Your task to perform on an android device: toggle airplane mode Image 0: 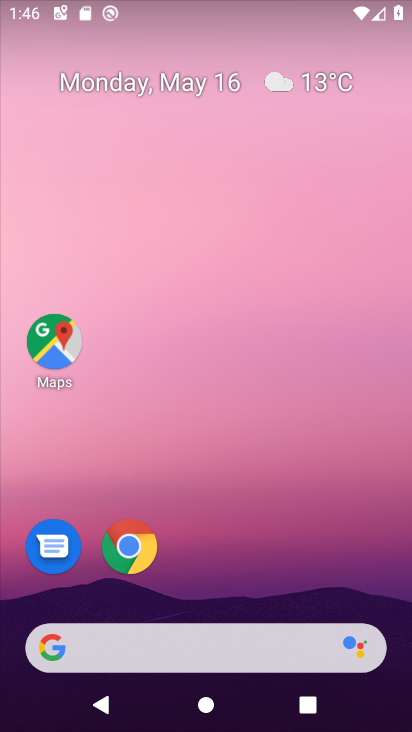
Step 0: drag from (229, 721) to (221, 175)
Your task to perform on an android device: toggle airplane mode Image 1: 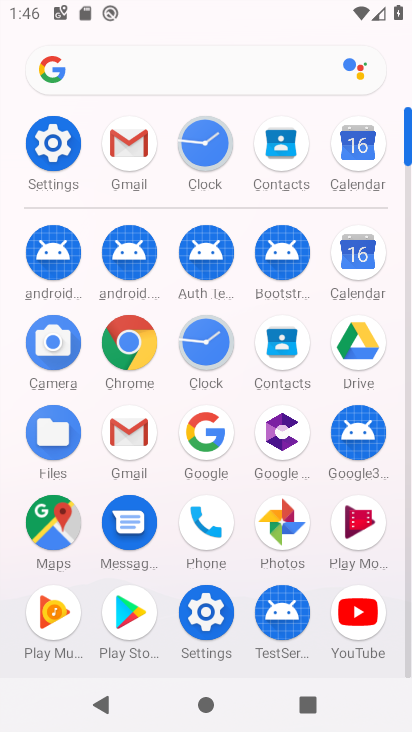
Step 1: click (59, 132)
Your task to perform on an android device: toggle airplane mode Image 2: 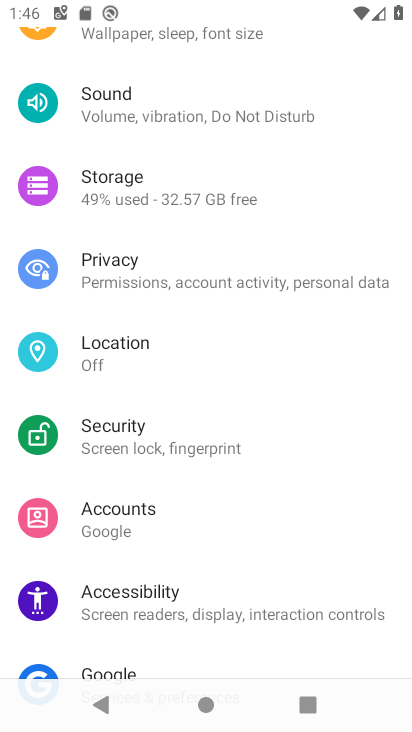
Step 2: drag from (122, 173) to (123, 528)
Your task to perform on an android device: toggle airplane mode Image 3: 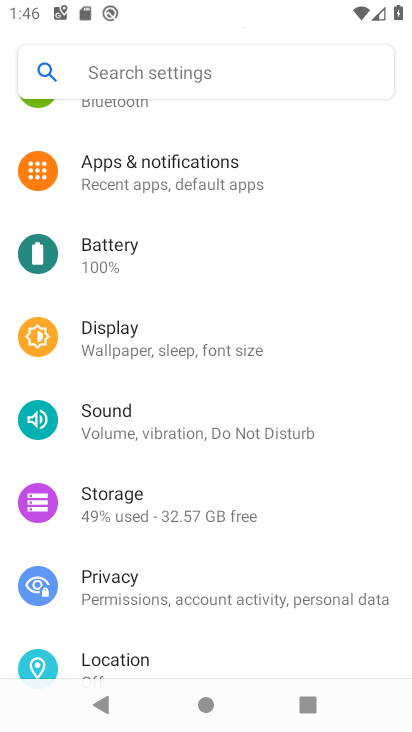
Step 3: drag from (189, 180) to (185, 524)
Your task to perform on an android device: toggle airplane mode Image 4: 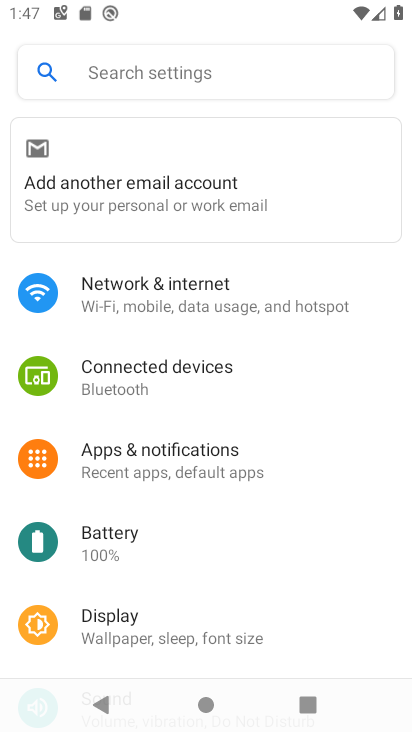
Step 4: click (145, 291)
Your task to perform on an android device: toggle airplane mode Image 5: 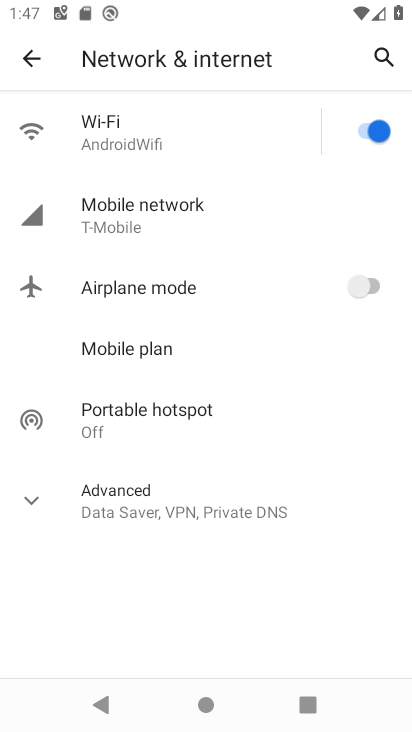
Step 5: click (372, 289)
Your task to perform on an android device: toggle airplane mode Image 6: 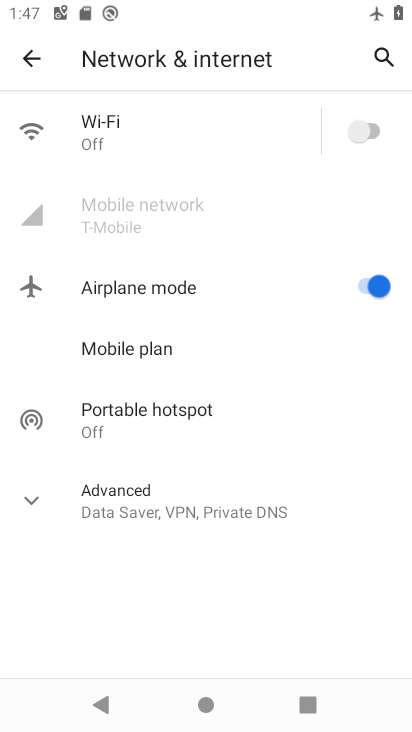
Step 6: task complete